Your task to perform on an android device: find snoozed emails in the gmail app Image 0: 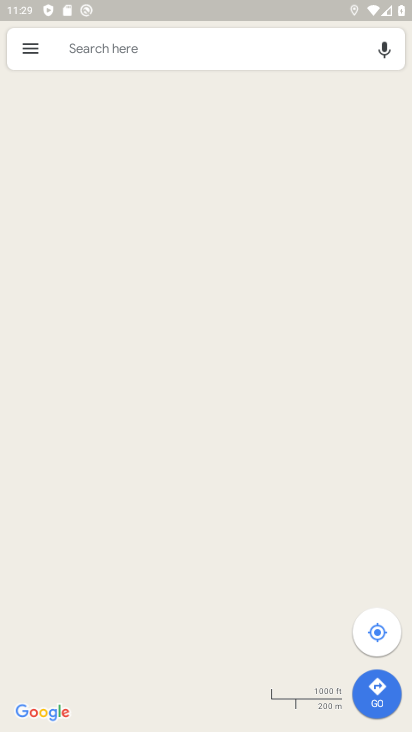
Step 0: press home button
Your task to perform on an android device: find snoozed emails in the gmail app Image 1: 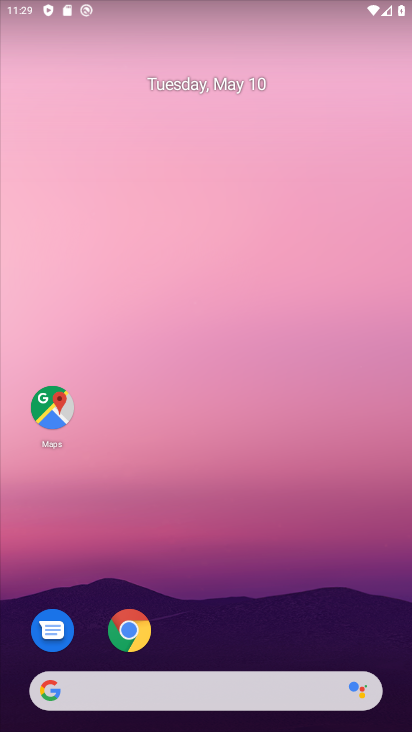
Step 1: drag from (306, 582) to (267, 155)
Your task to perform on an android device: find snoozed emails in the gmail app Image 2: 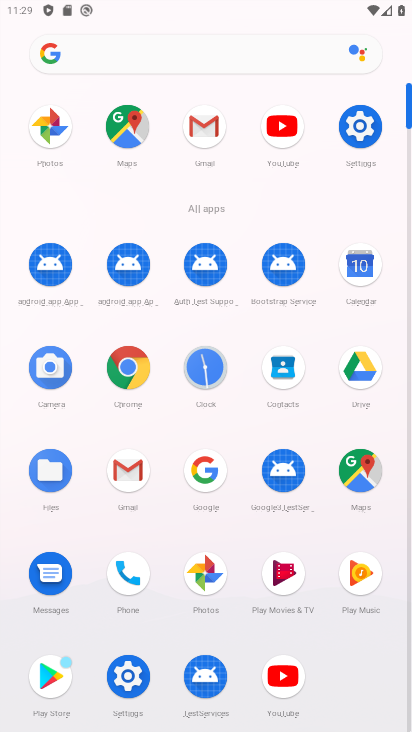
Step 2: click (138, 464)
Your task to perform on an android device: find snoozed emails in the gmail app Image 3: 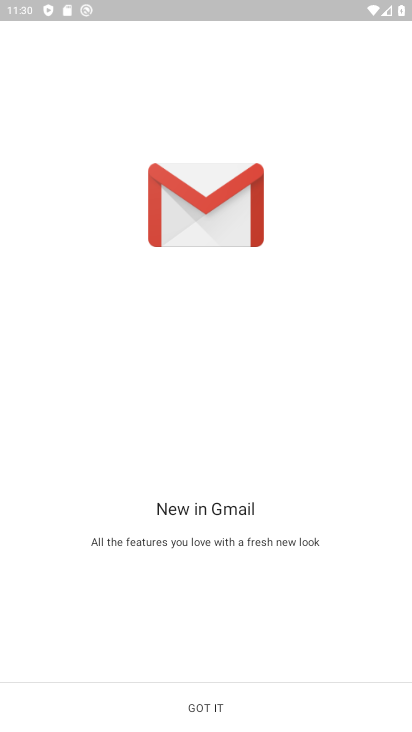
Step 3: click (204, 711)
Your task to perform on an android device: find snoozed emails in the gmail app Image 4: 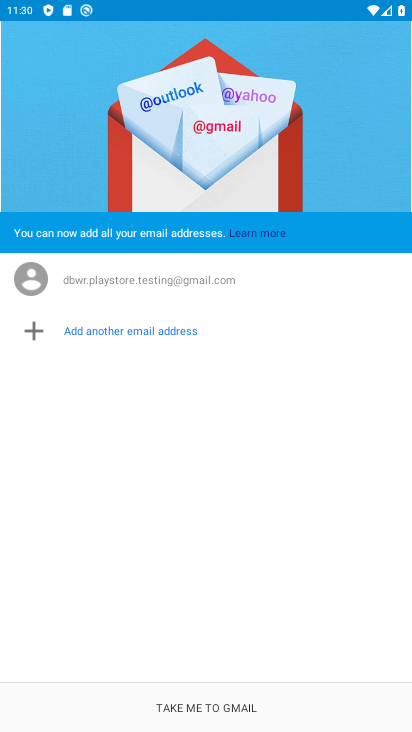
Step 4: click (205, 706)
Your task to perform on an android device: find snoozed emails in the gmail app Image 5: 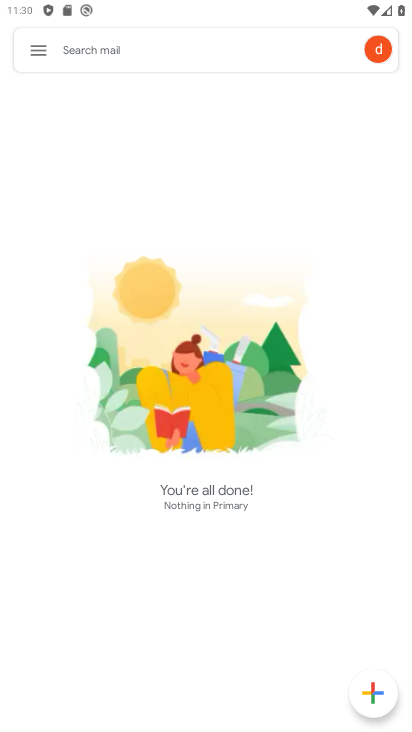
Step 5: click (39, 52)
Your task to perform on an android device: find snoozed emails in the gmail app Image 6: 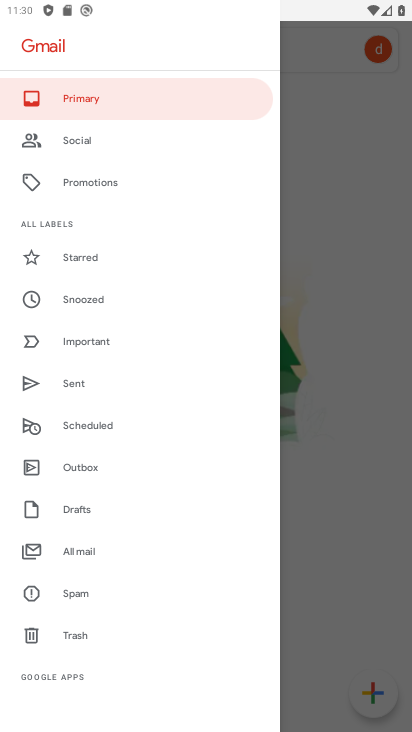
Step 6: click (109, 298)
Your task to perform on an android device: find snoozed emails in the gmail app Image 7: 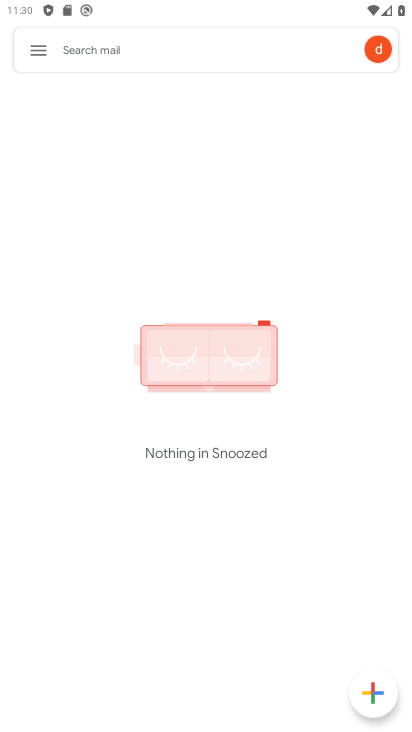
Step 7: task complete